Your task to perform on an android device: open a bookmark in the chrome app Image 0: 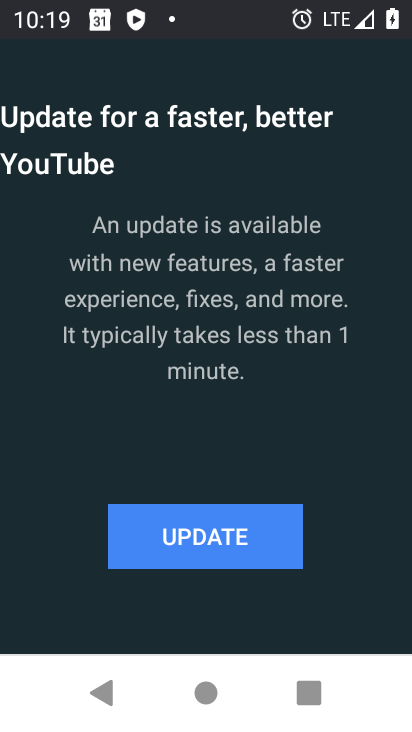
Step 0: press back button
Your task to perform on an android device: open a bookmark in the chrome app Image 1: 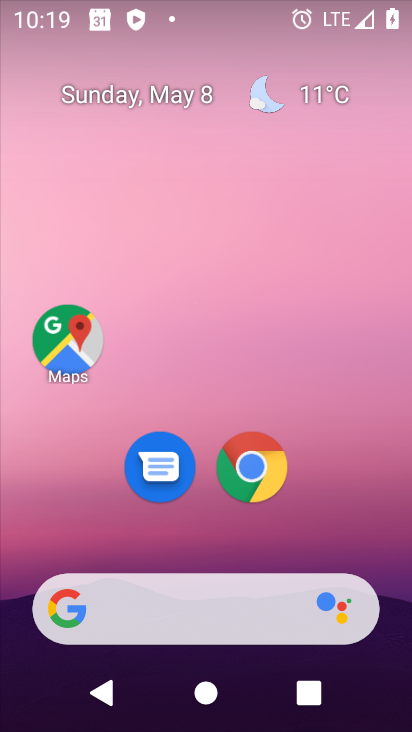
Step 1: drag from (242, 469) to (298, 469)
Your task to perform on an android device: open a bookmark in the chrome app Image 2: 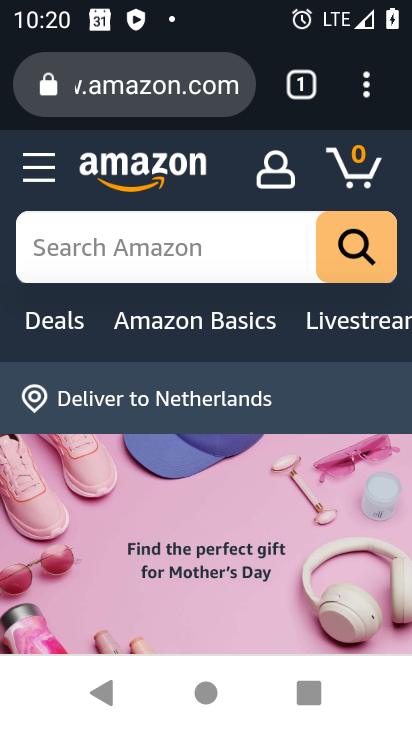
Step 2: click (367, 86)
Your task to perform on an android device: open a bookmark in the chrome app Image 3: 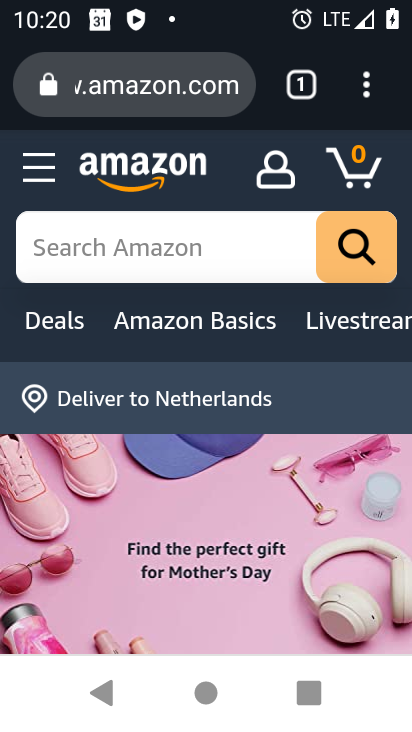
Step 3: click (367, 86)
Your task to perform on an android device: open a bookmark in the chrome app Image 4: 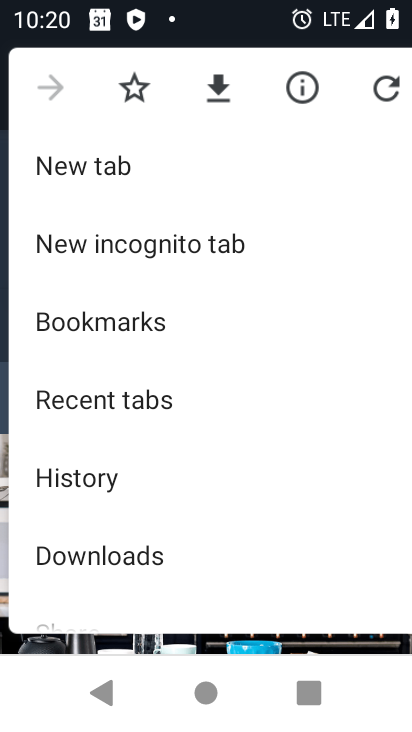
Step 4: click (194, 316)
Your task to perform on an android device: open a bookmark in the chrome app Image 5: 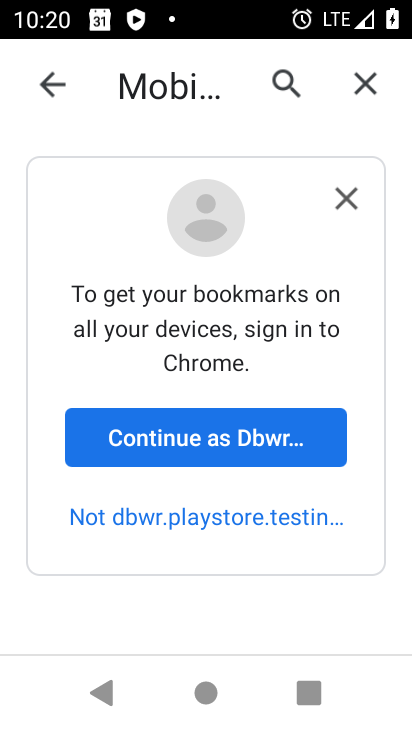
Step 5: click (357, 187)
Your task to perform on an android device: open a bookmark in the chrome app Image 6: 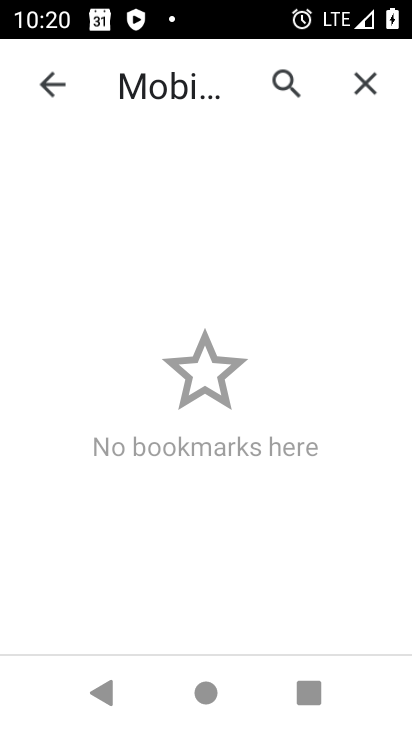
Step 6: task complete